Your task to perform on an android device: toggle priority inbox in the gmail app Image 0: 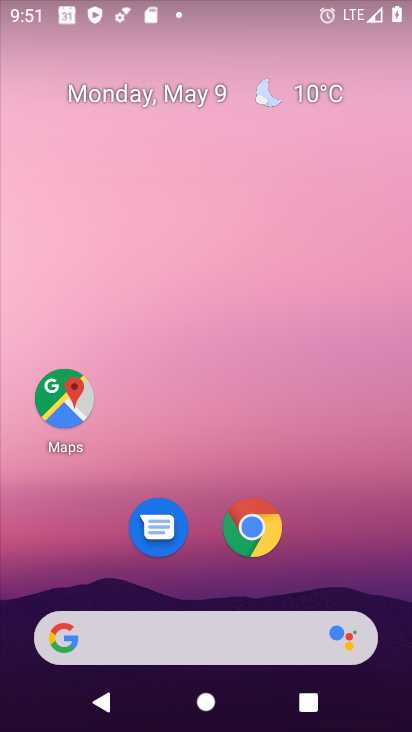
Step 0: drag from (400, 639) to (263, 3)
Your task to perform on an android device: toggle priority inbox in the gmail app Image 1: 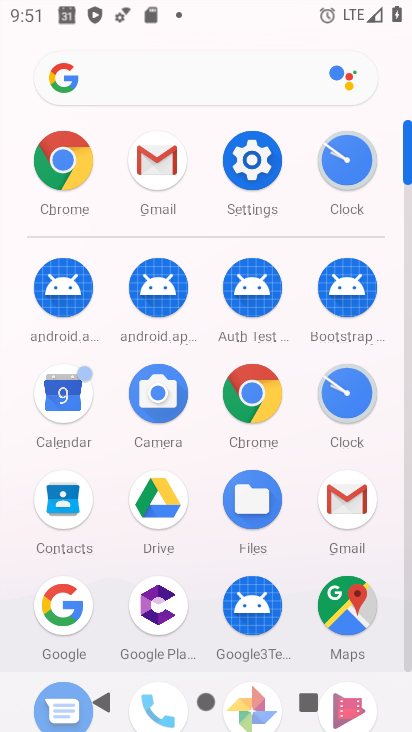
Step 1: click (407, 637)
Your task to perform on an android device: toggle priority inbox in the gmail app Image 2: 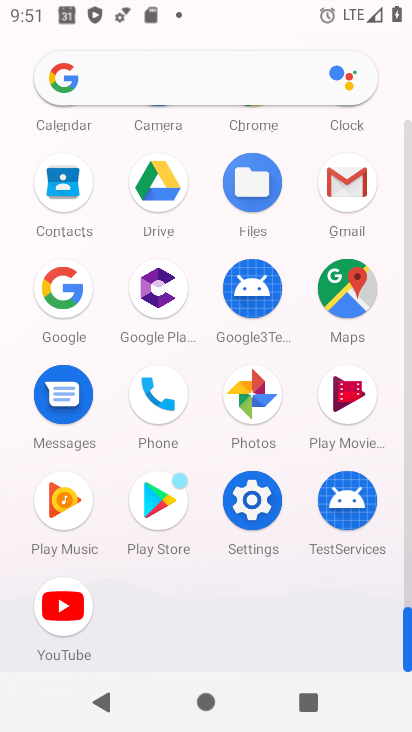
Step 2: click (344, 182)
Your task to perform on an android device: toggle priority inbox in the gmail app Image 3: 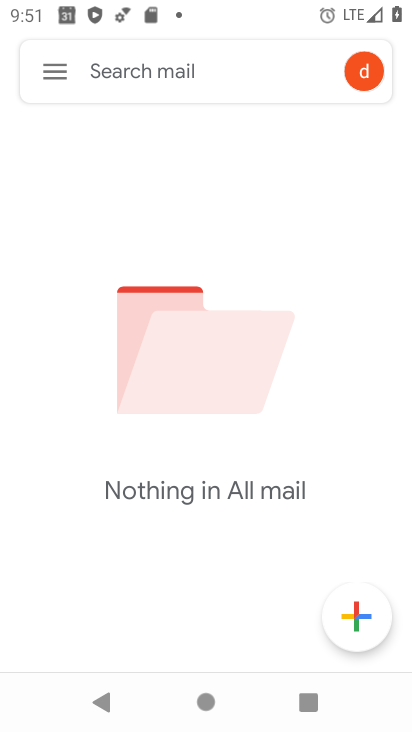
Step 3: click (51, 67)
Your task to perform on an android device: toggle priority inbox in the gmail app Image 4: 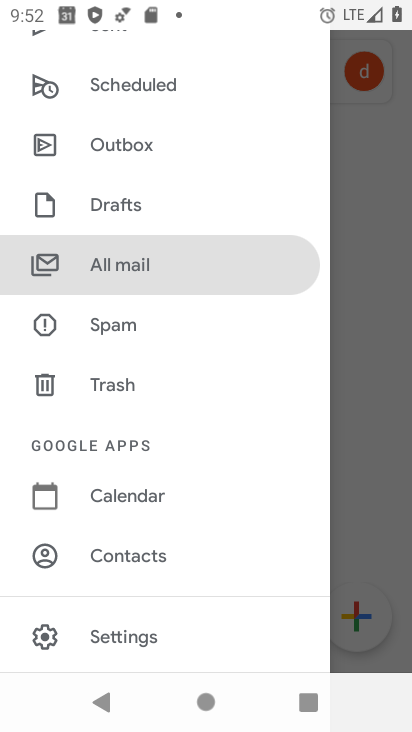
Step 4: click (106, 644)
Your task to perform on an android device: toggle priority inbox in the gmail app Image 5: 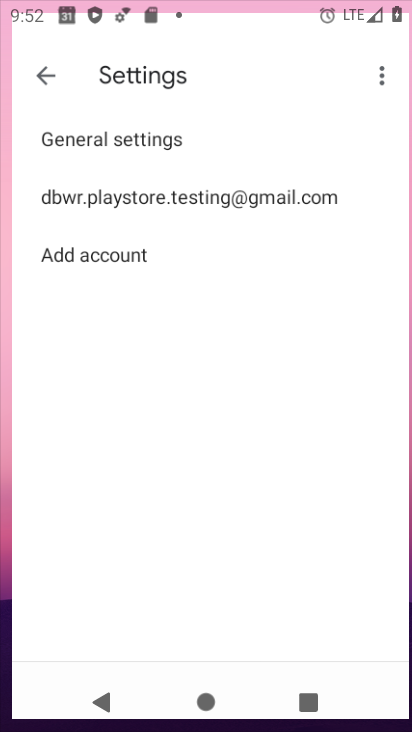
Step 5: click (106, 644)
Your task to perform on an android device: toggle priority inbox in the gmail app Image 6: 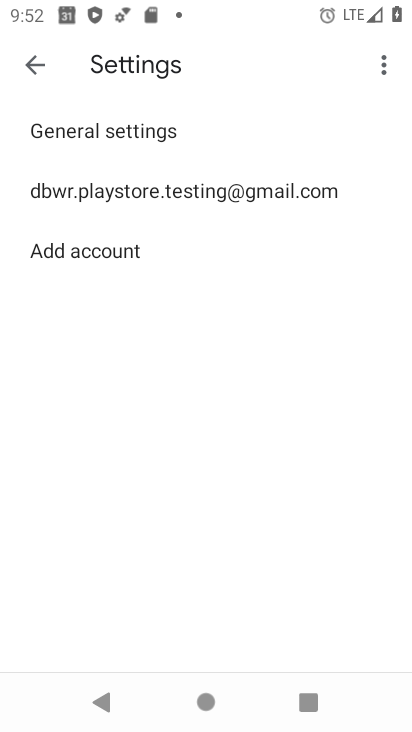
Step 6: click (104, 186)
Your task to perform on an android device: toggle priority inbox in the gmail app Image 7: 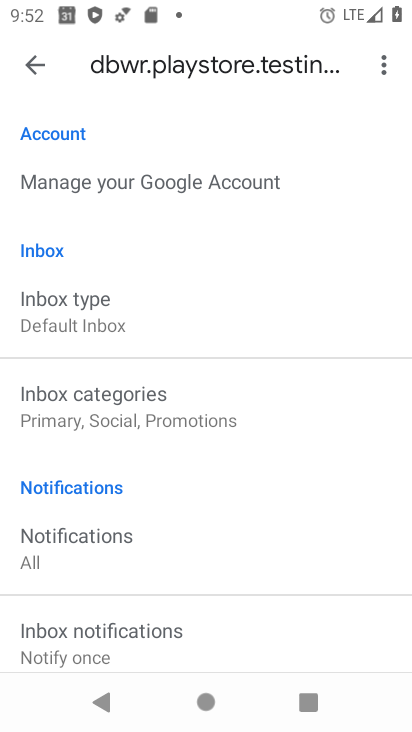
Step 7: click (90, 318)
Your task to perform on an android device: toggle priority inbox in the gmail app Image 8: 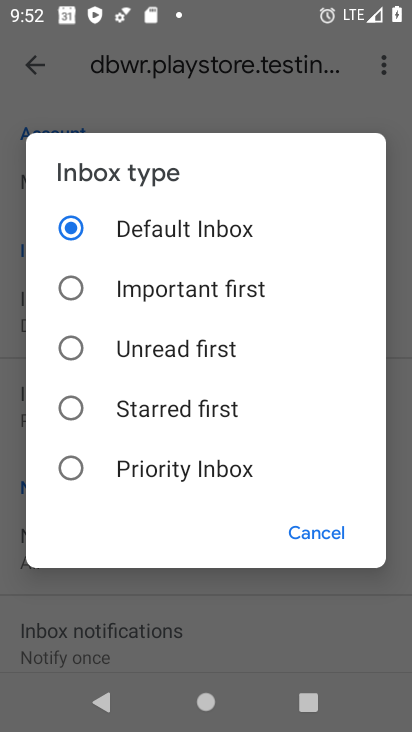
Step 8: click (72, 475)
Your task to perform on an android device: toggle priority inbox in the gmail app Image 9: 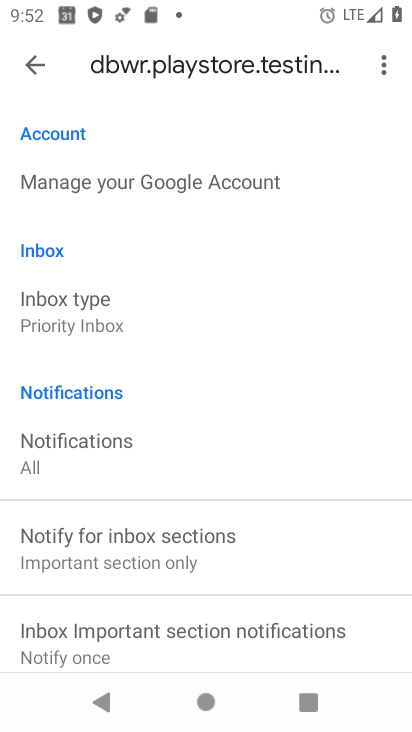
Step 9: task complete